Your task to perform on an android device: Open display settings Image 0: 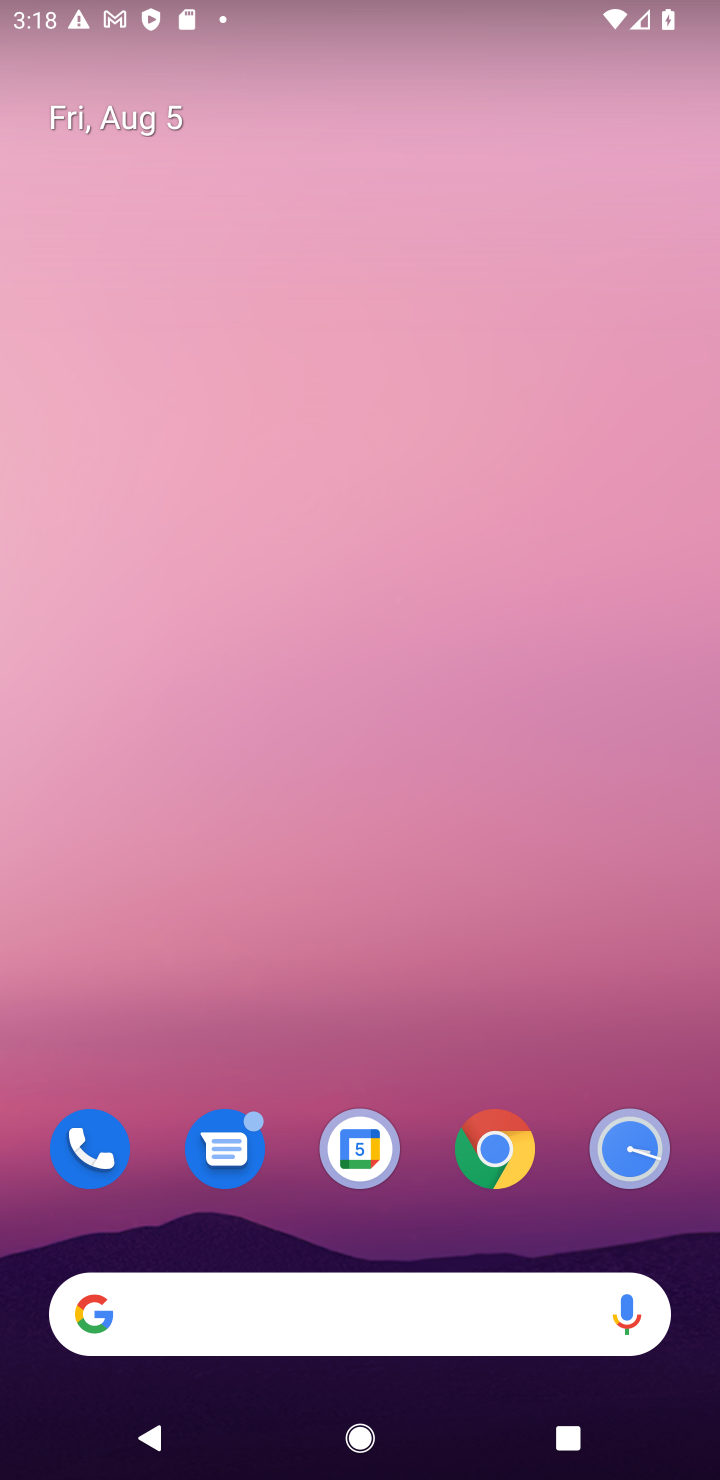
Step 0: drag from (484, 897) to (608, 84)
Your task to perform on an android device: Open display settings Image 1: 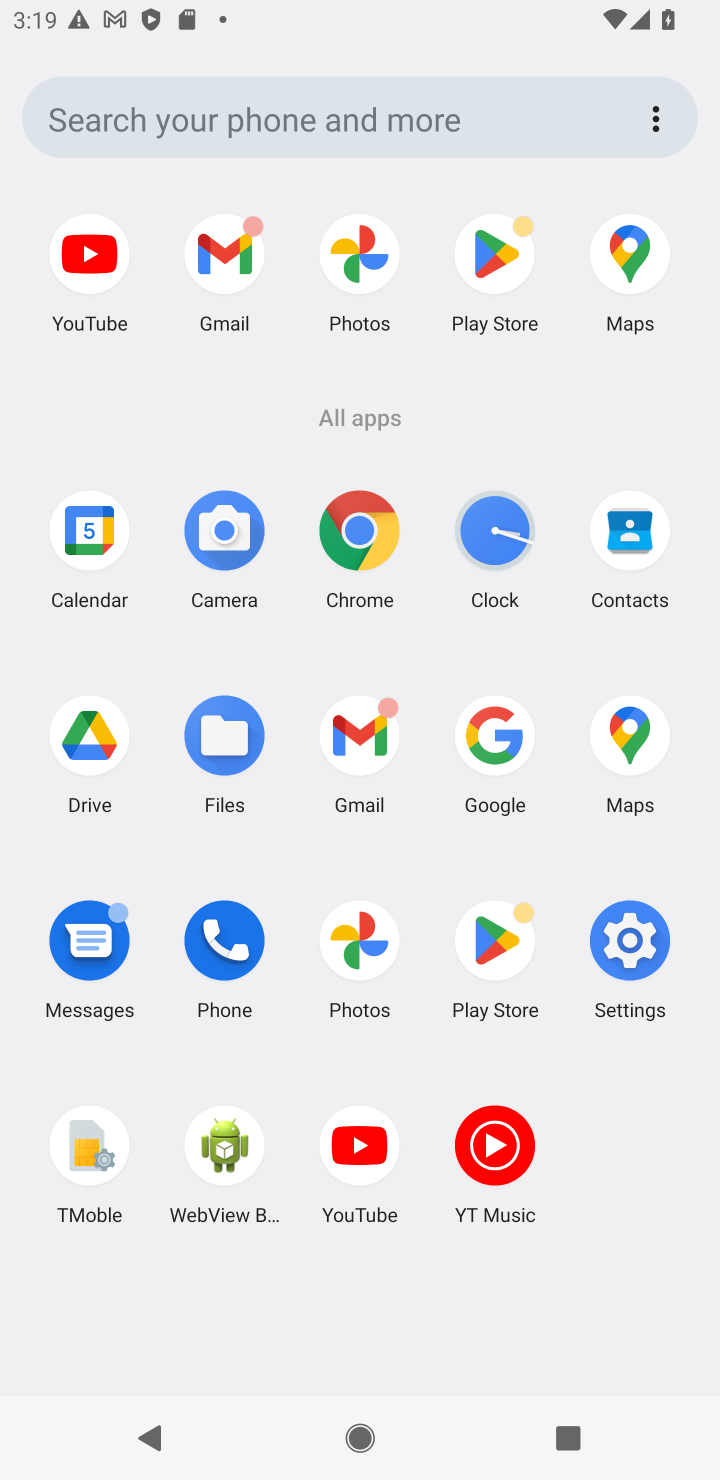
Step 1: click (628, 995)
Your task to perform on an android device: Open display settings Image 2: 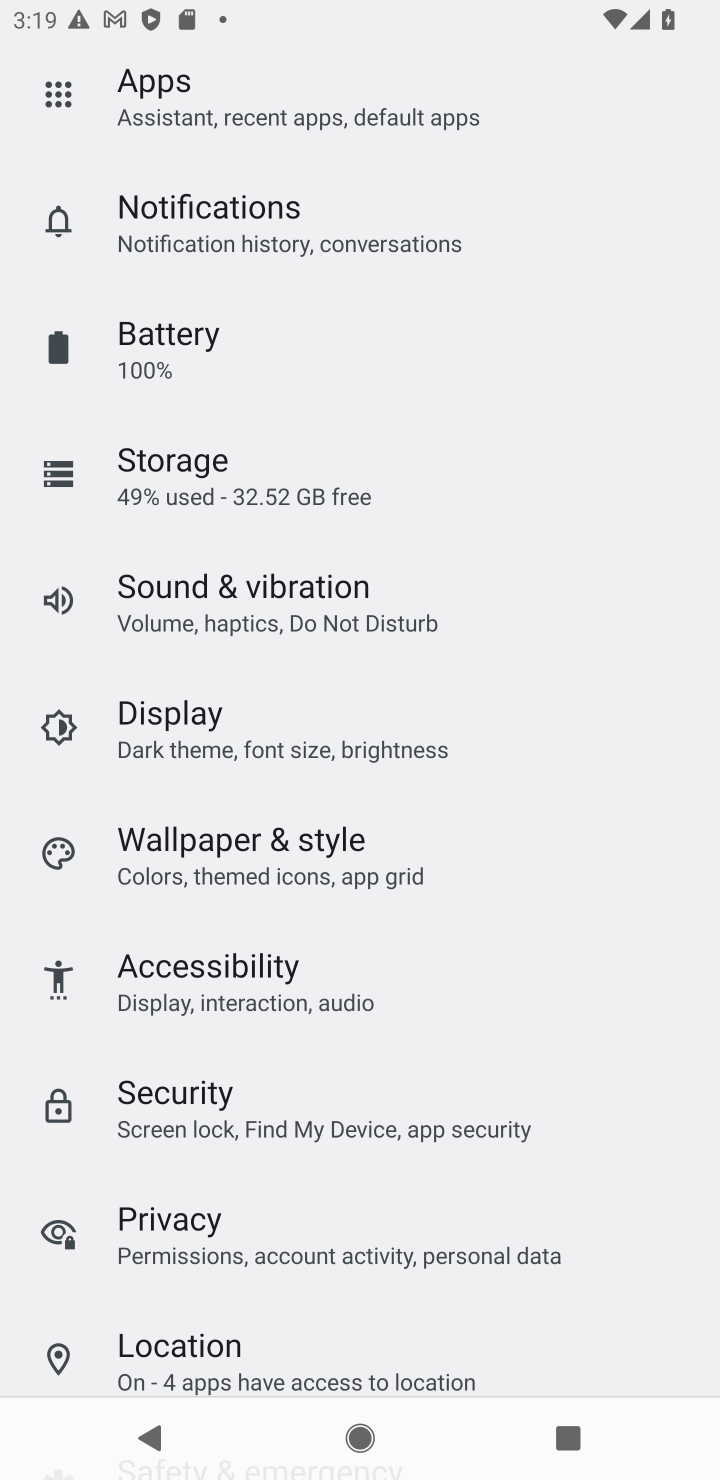
Step 2: click (267, 730)
Your task to perform on an android device: Open display settings Image 3: 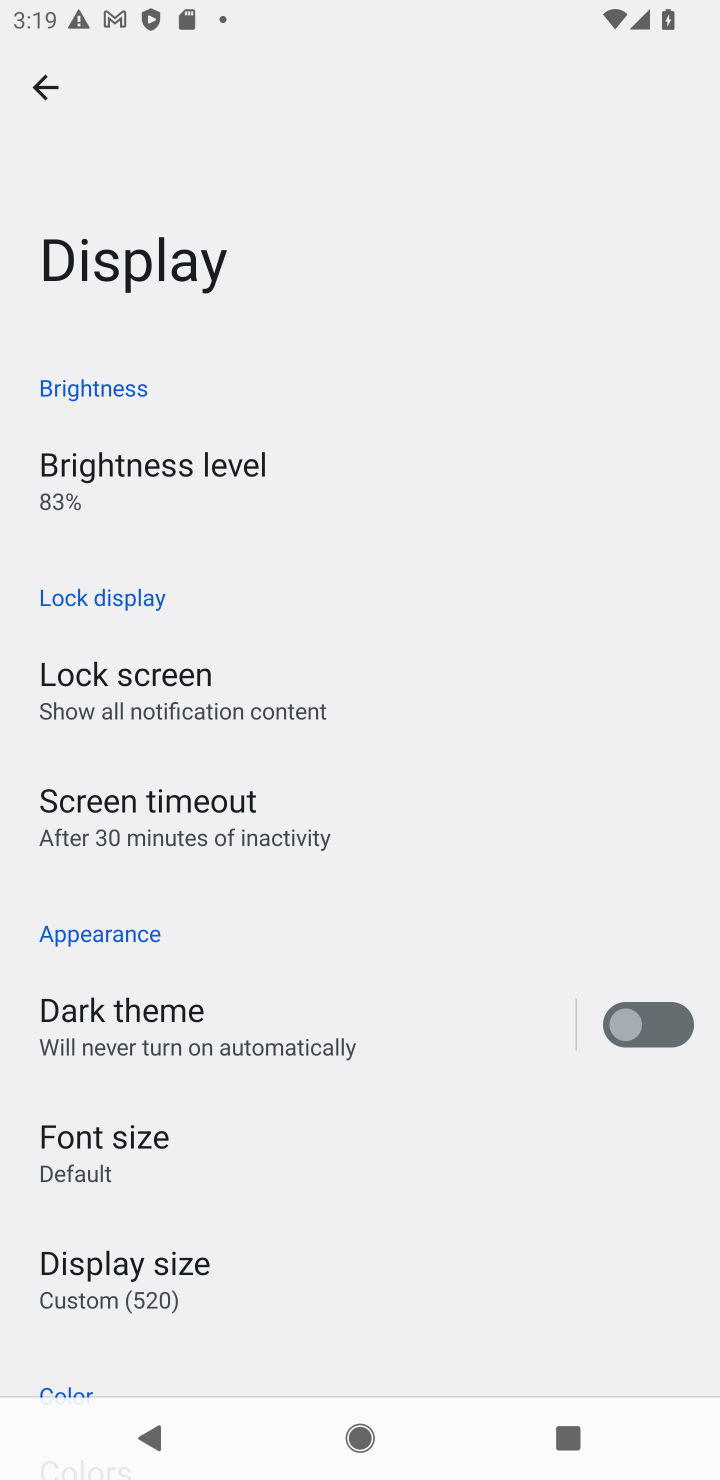
Step 3: task complete